Your task to perform on an android device: Open the calendar app, open the side menu, and click the "Day" option Image 0: 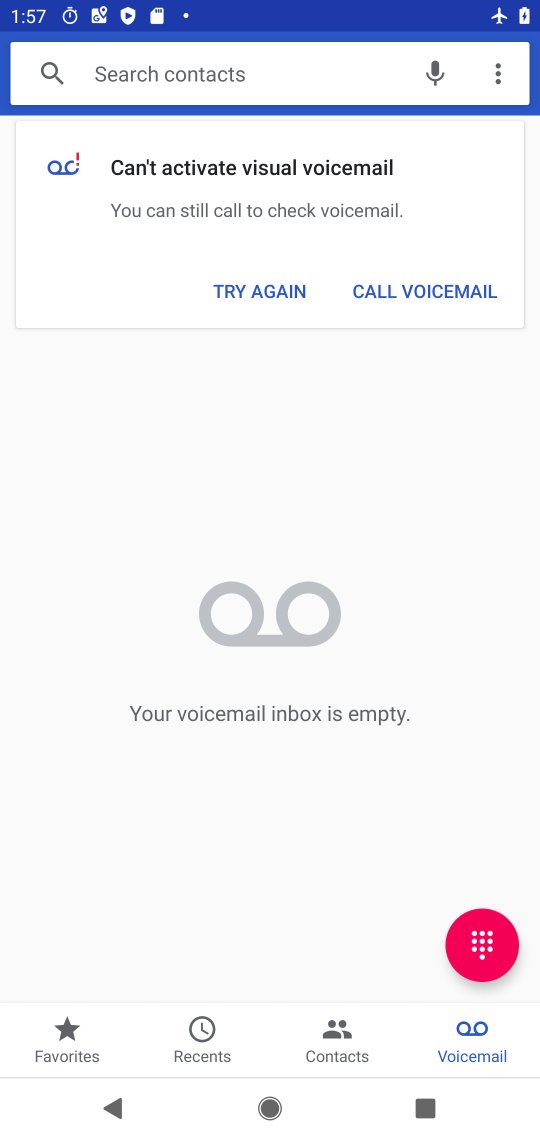
Step 0: press home button
Your task to perform on an android device: Open the calendar app, open the side menu, and click the "Day" option Image 1: 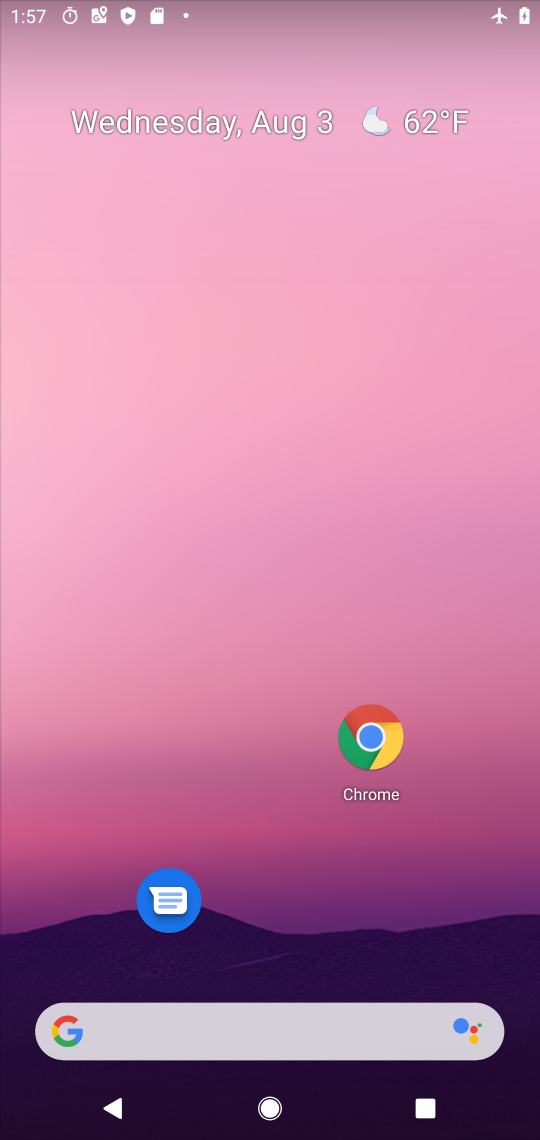
Step 1: drag from (247, 901) to (305, 133)
Your task to perform on an android device: Open the calendar app, open the side menu, and click the "Day" option Image 2: 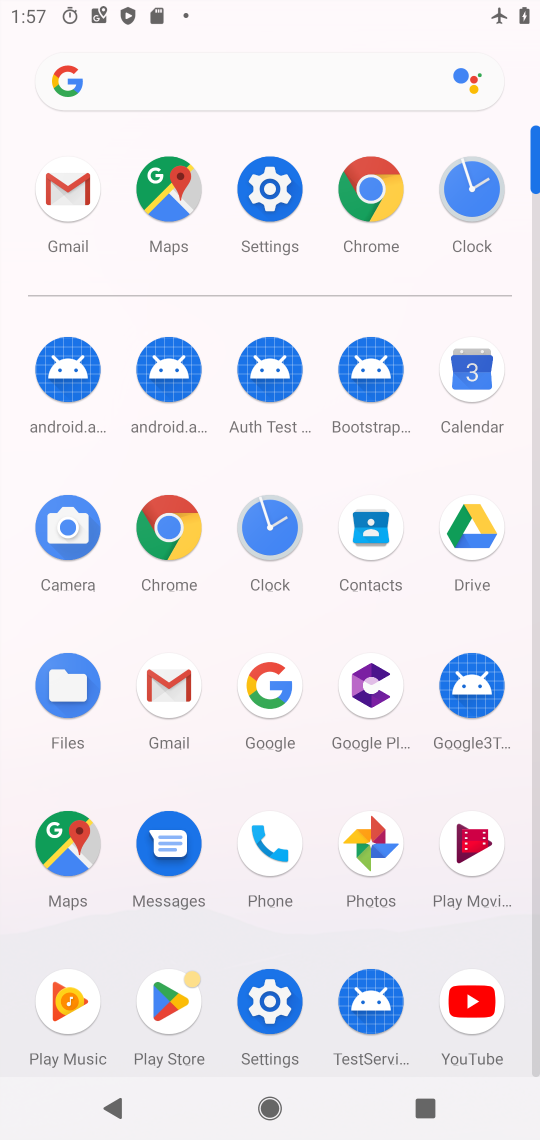
Step 2: click (467, 379)
Your task to perform on an android device: Open the calendar app, open the side menu, and click the "Day" option Image 3: 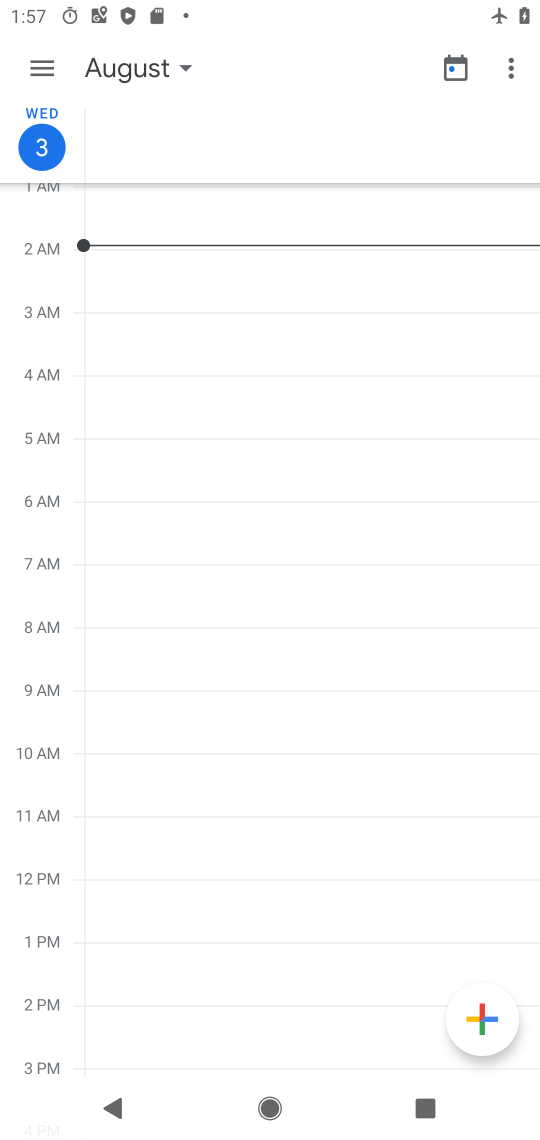
Step 3: click (35, 58)
Your task to perform on an android device: Open the calendar app, open the side menu, and click the "Day" option Image 4: 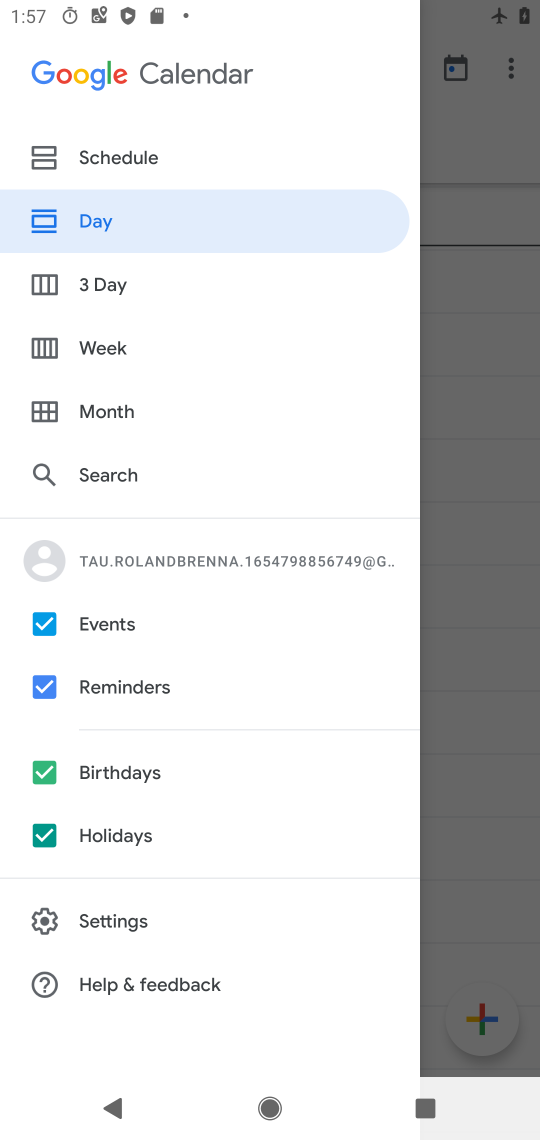
Step 4: click (139, 220)
Your task to perform on an android device: Open the calendar app, open the side menu, and click the "Day" option Image 5: 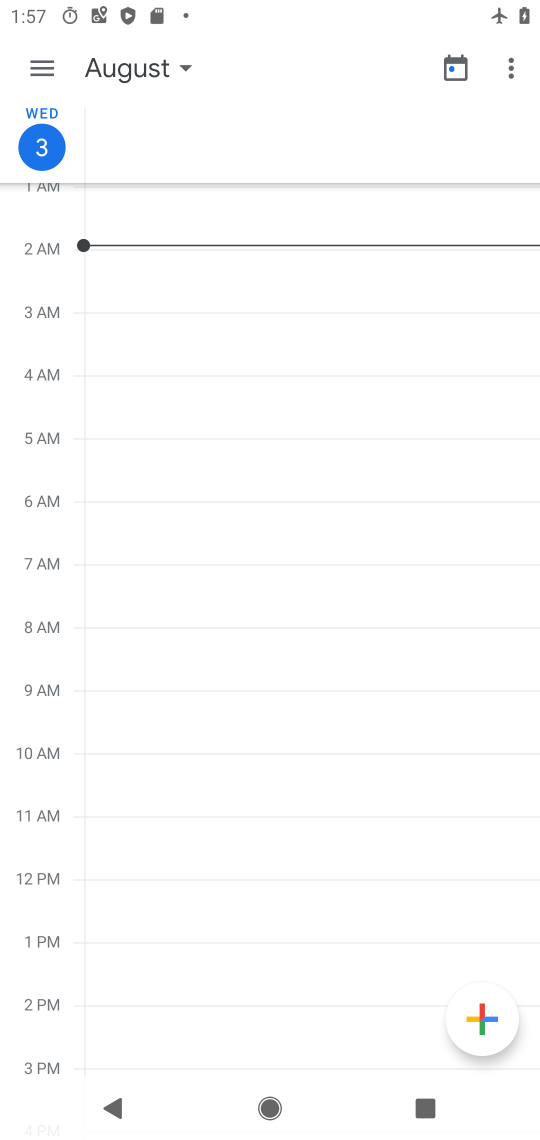
Step 5: task complete